Your task to perform on an android device: Open the calendar and show me this week's events? Image 0: 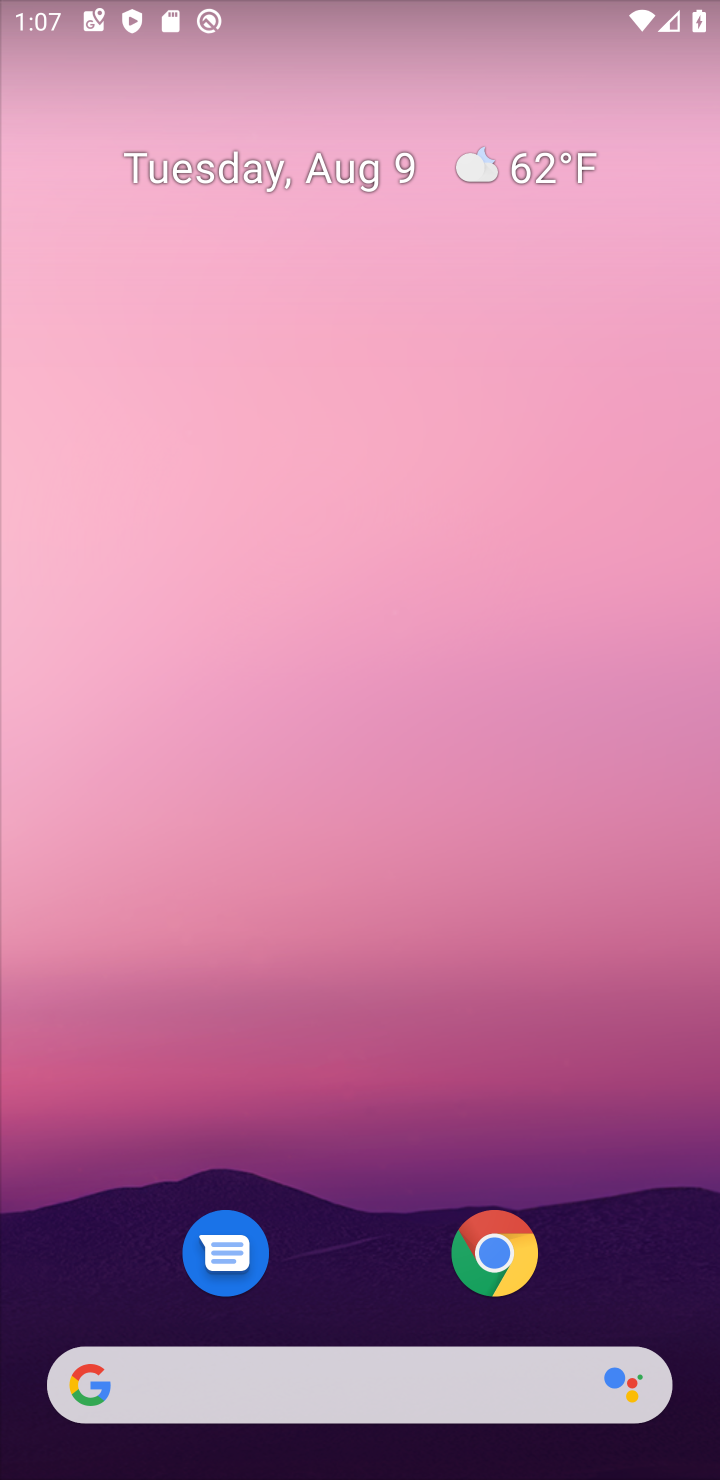
Step 0: drag from (544, 824) to (268, 62)
Your task to perform on an android device: Open the calendar and show me this week's events? Image 1: 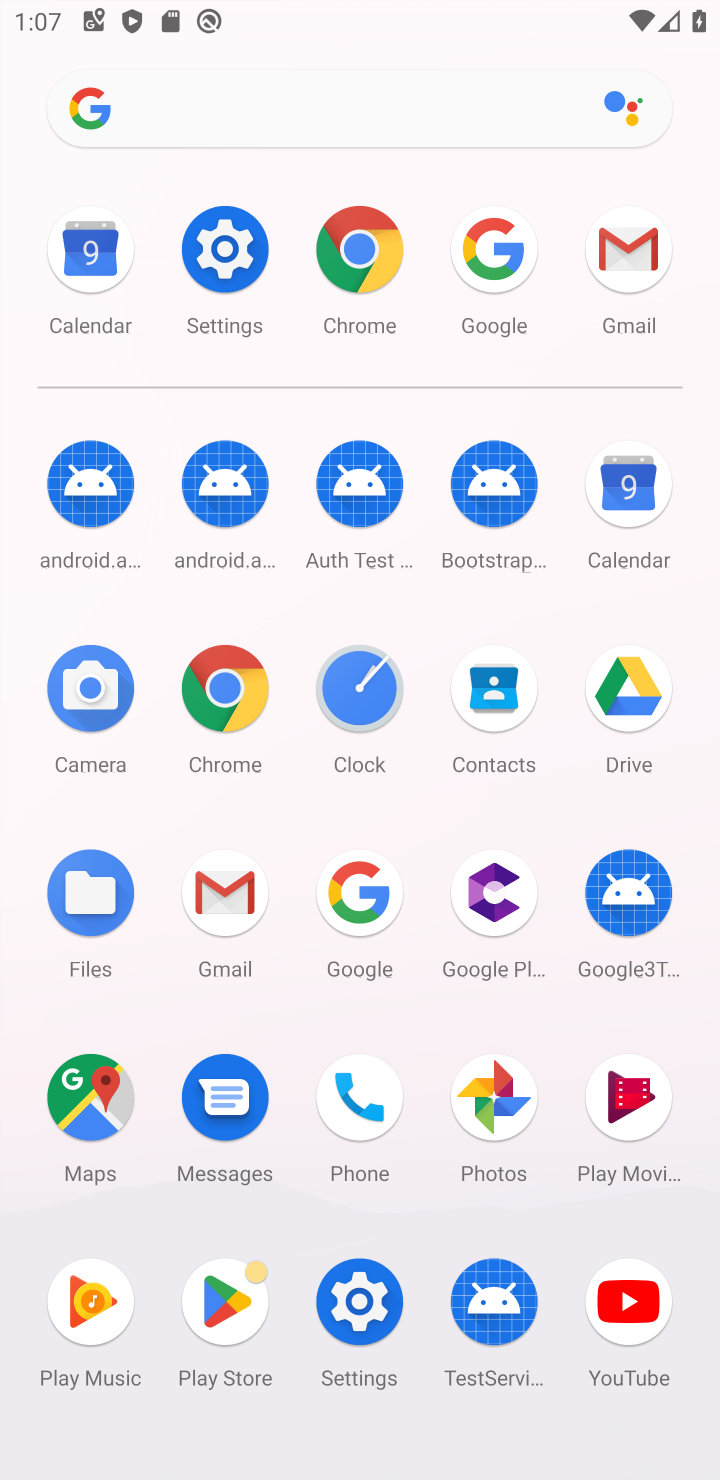
Step 1: click (638, 464)
Your task to perform on an android device: Open the calendar and show me this week's events? Image 2: 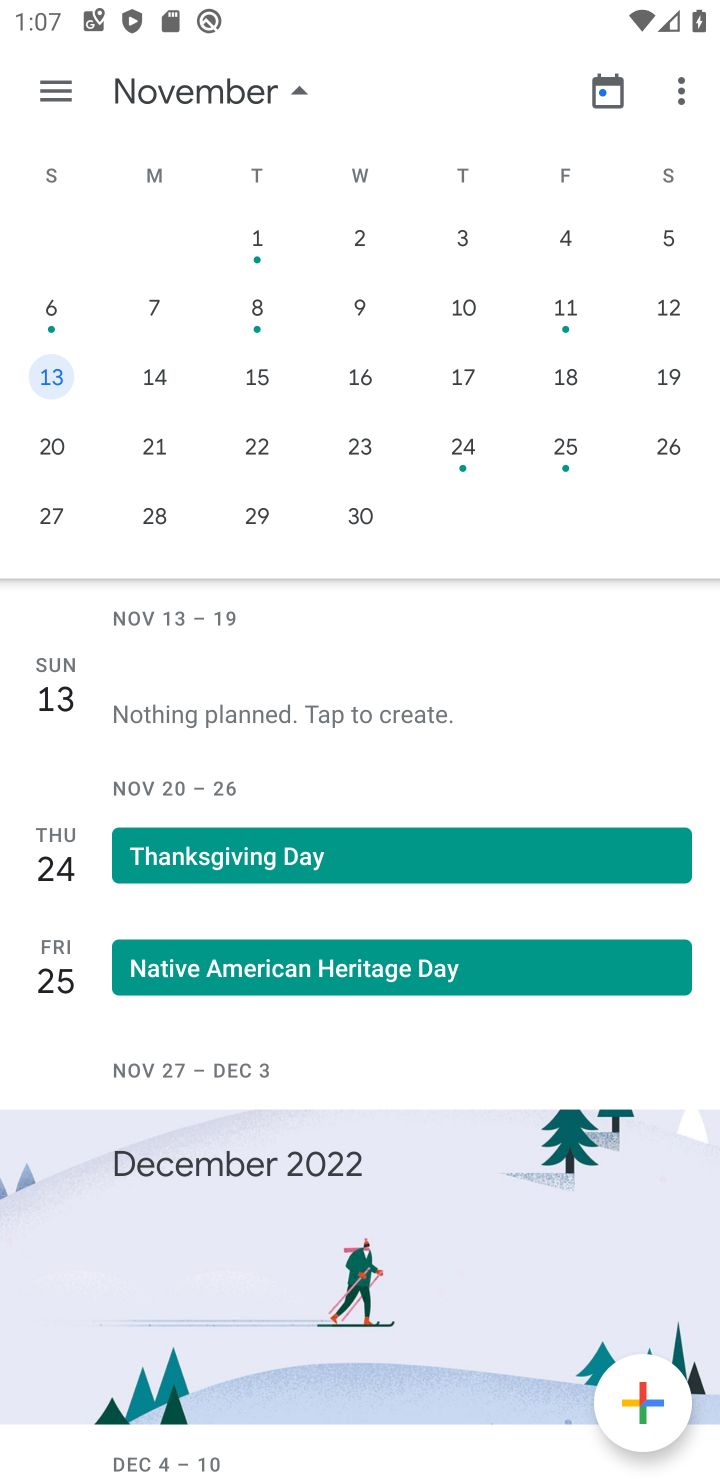
Step 2: task complete